Your task to perform on an android device: Open the web browser Image 0: 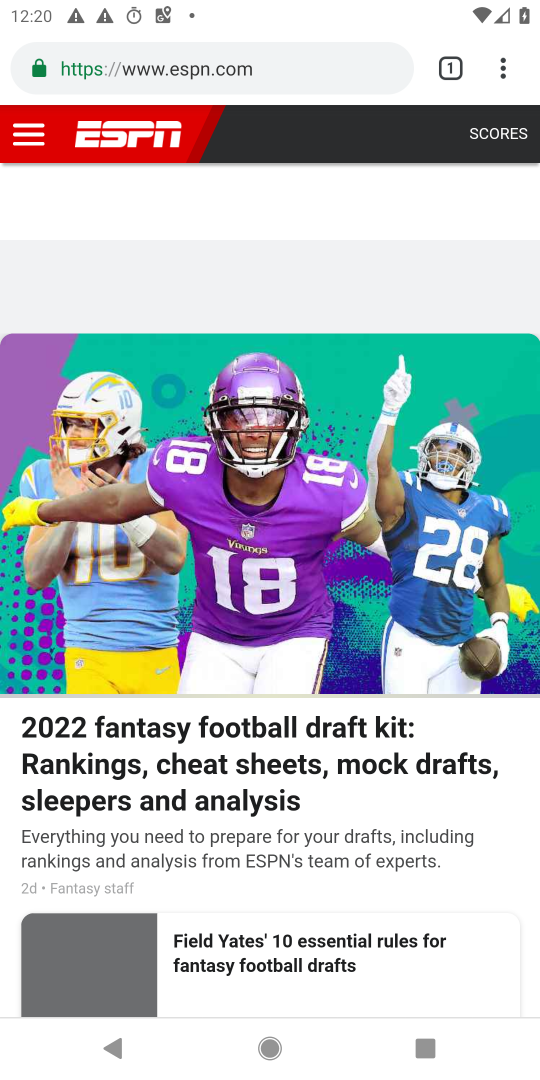
Step 0: press home button
Your task to perform on an android device: Open the web browser Image 1: 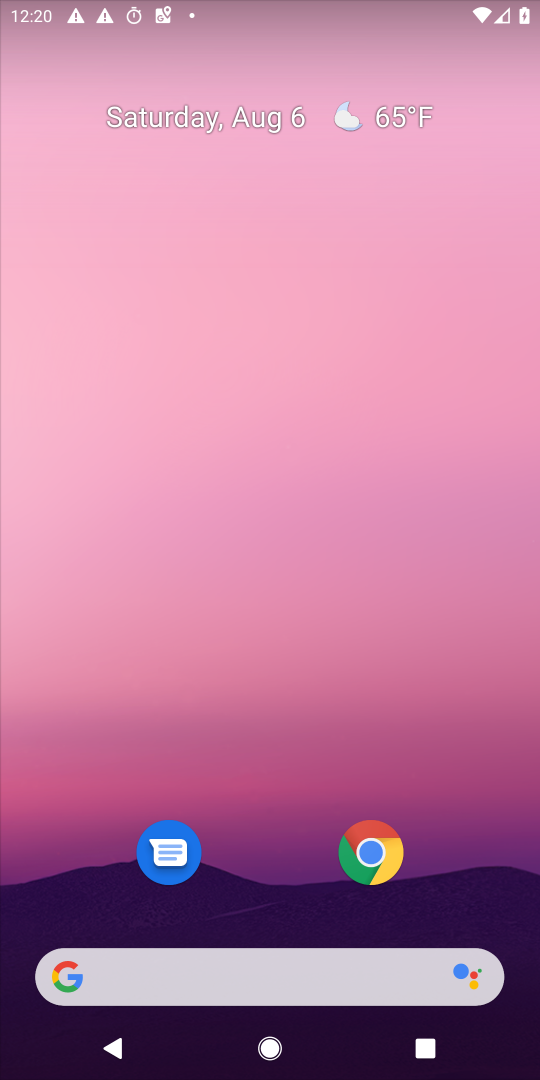
Step 1: drag from (304, 1003) to (409, 208)
Your task to perform on an android device: Open the web browser Image 2: 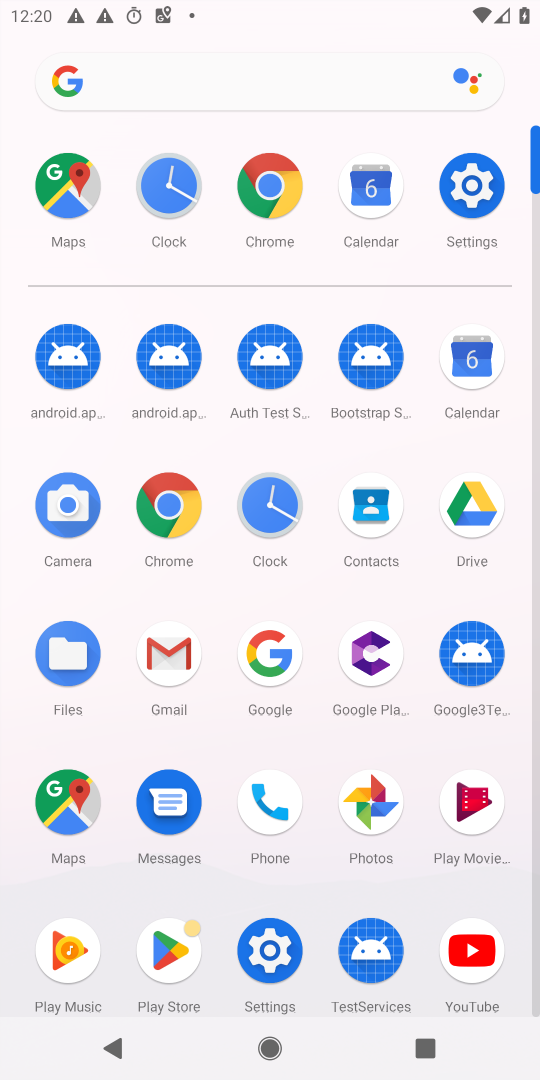
Step 2: click (248, 176)
Your task to perform on an android device: Open the web browser Image 3: 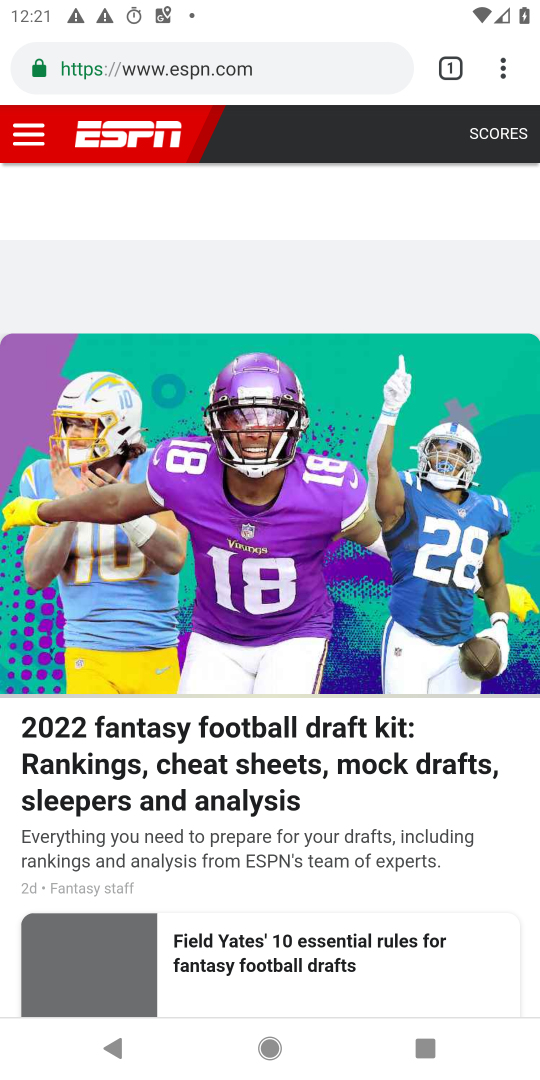
Step 3: click (301, 70)
Your task to perform on an android device: Open the web browser Image 4: 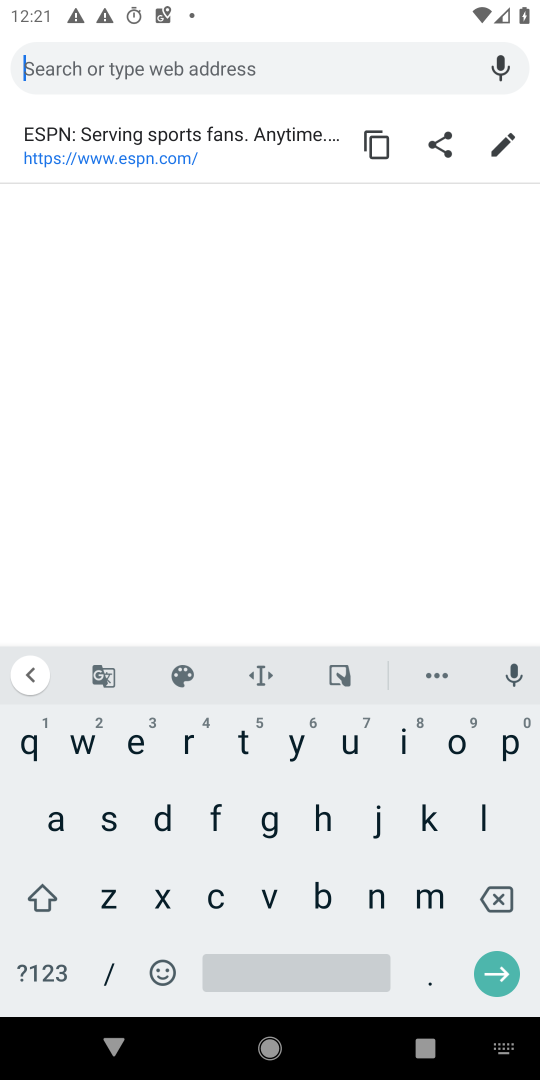
Step 4: task complete